Your task to perform on an android device: Open Google Image 0: 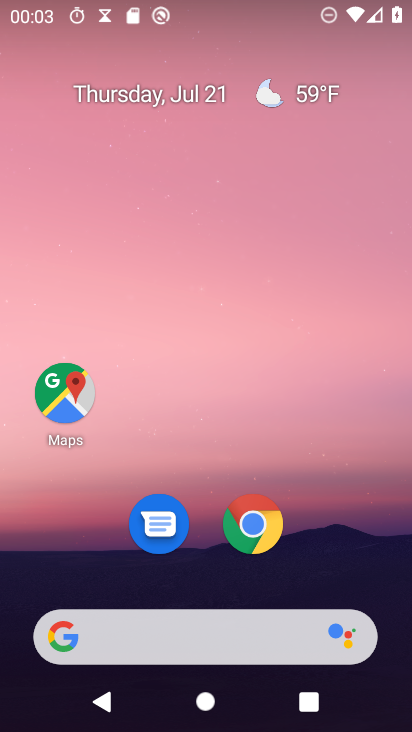
Step 0: press home button
Your task to perform on an android device: Open Google Image 1: 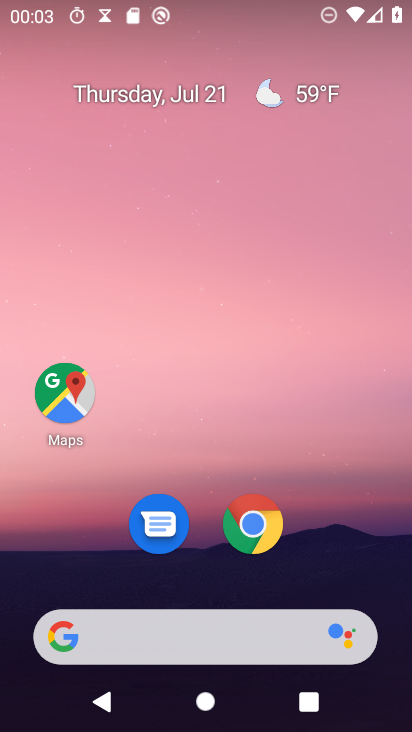
Step 1: drag from (241, 633) to (284, 140)
Your task to perform on an android device: Open Google Image 2: 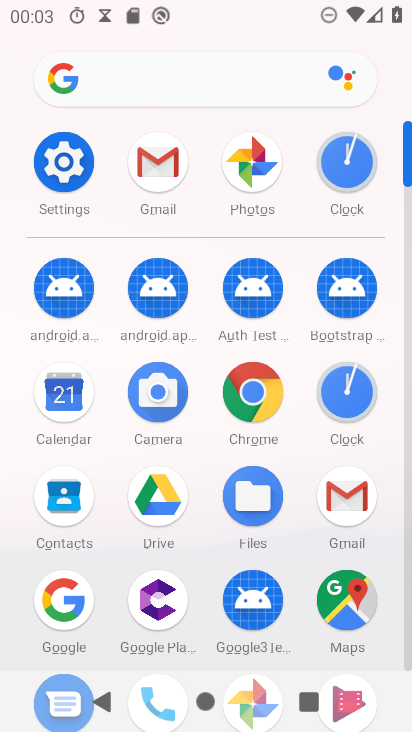
Step 2: drag from (194, 611) to (248, 309)
Your task to perform on an android device: Open Google Image 3: 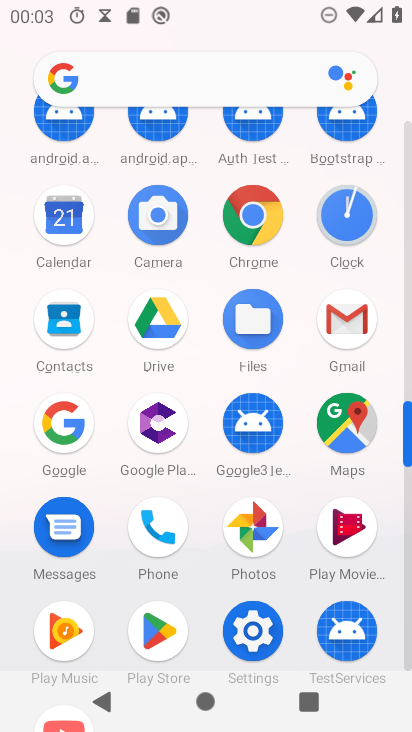
Step 3: click (61, 432)
Your task to perform on an android device: Open Google Image 4: 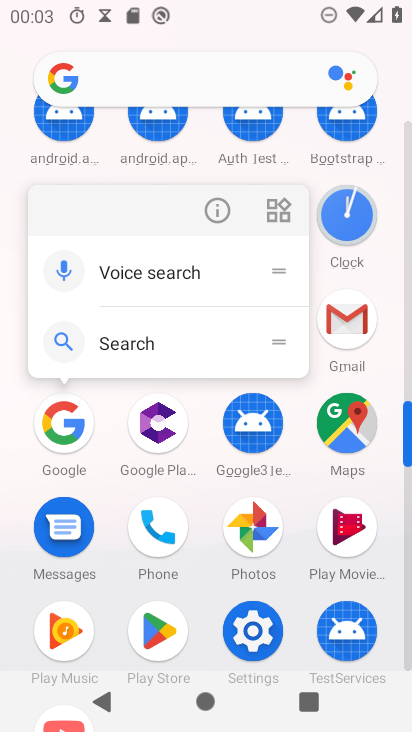
Step 4: click (61, 431)
Your task to perform on an android device: Open Google Image 5: 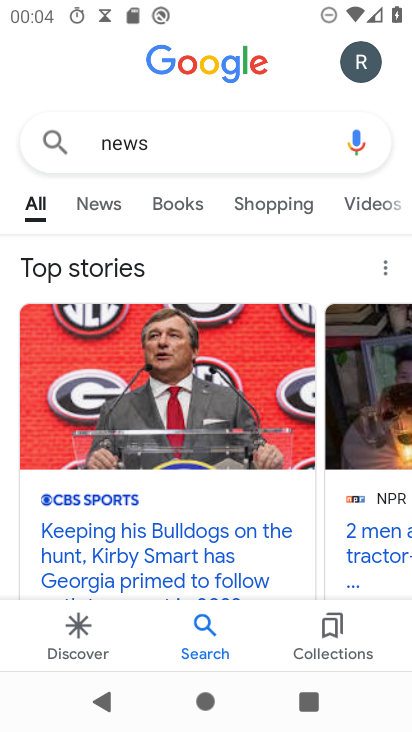
Step 5: task complete